Your task to perform on an android device: toggle data saver in the chrome app Image 0: 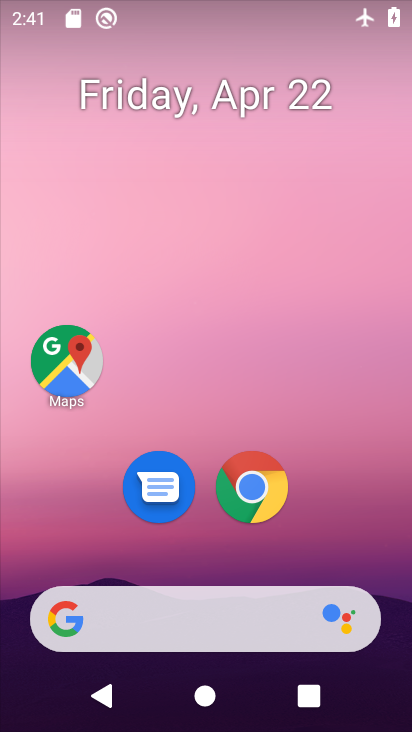
Step 0: click (256, 502)
Your task to perform on an android device: toggle data saver in the chrome app Image 1: 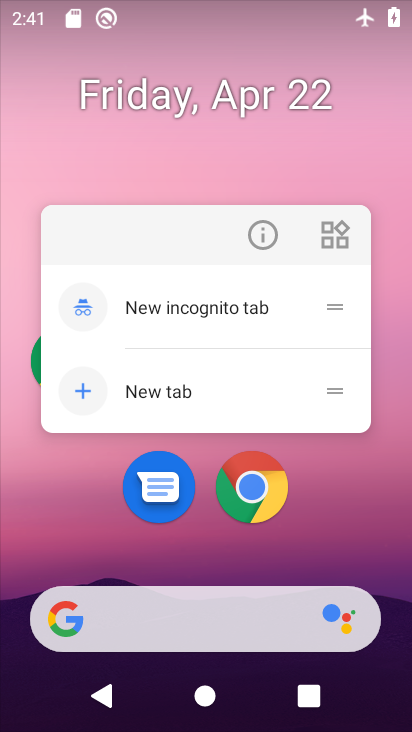
Step 1: click (261, 228)
Your task to perform on an android device: toggle data saver in the chrome app Image 2: 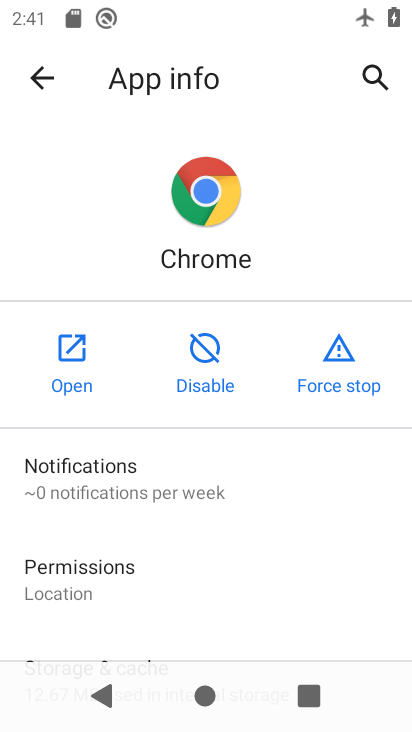
Step 2: click (88, 379)
Your task to perform on an android device: toggle data saver in the chrome app Image 3: 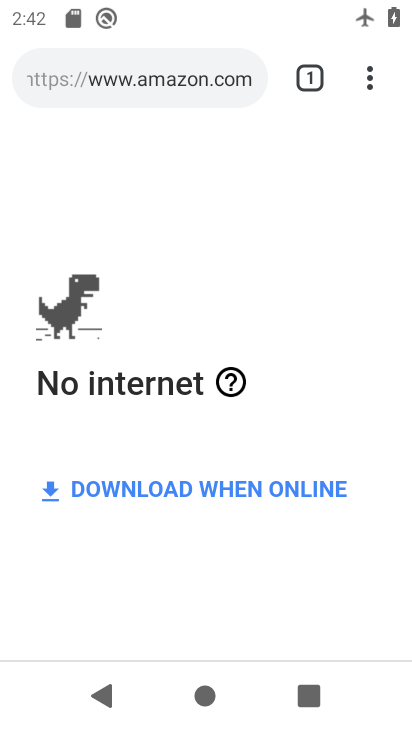
Step 3: click (374, 86)
Your task to perform on an android device: toggle data saver in the chrome app Image 4: 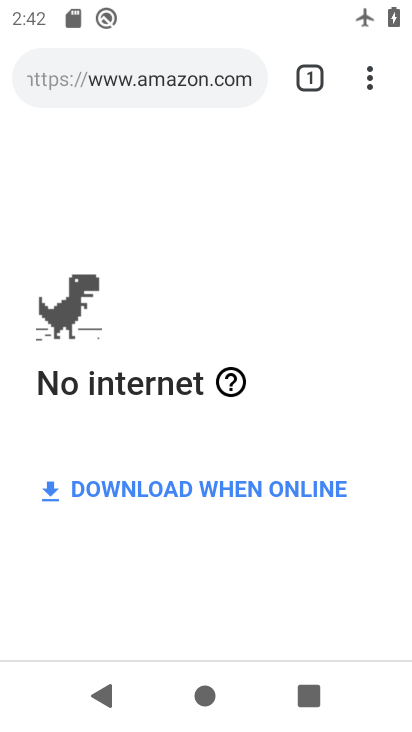
Step 4: click (371, 72)
Your task to perform on an android device: toggle data saver in the chrome app Image 5: 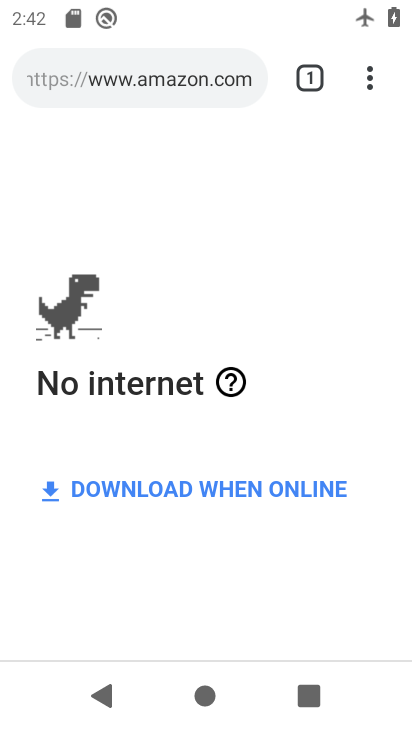
Step 5: click (370, 74)
Your task to perform on an android device: toggle data saver in the chrome app Image 6: 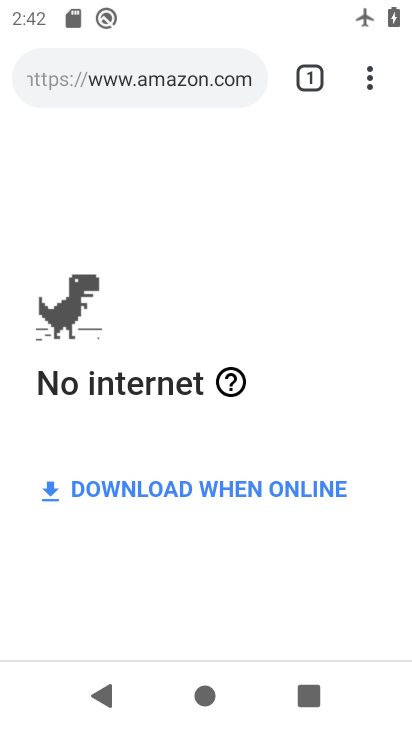
Step 6: click (370, 83)
Your task to perform on an android device: toggle data saver in the chrome app Image 7: 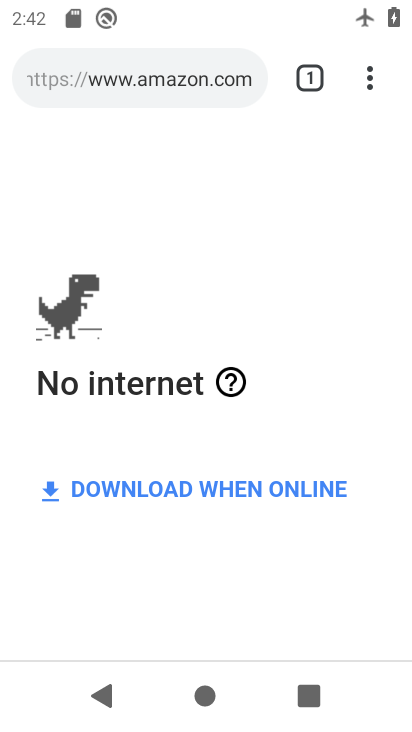
Step 7: click (370, 83)
Your task to perform on an android device: toggle data saver in the chrome app Image 8: 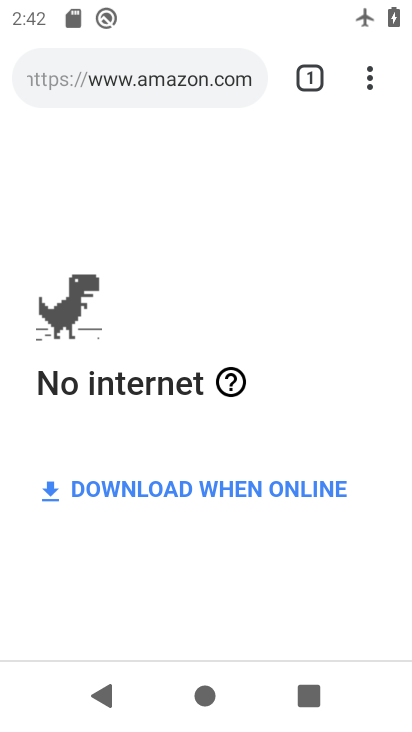
Step 8: click (374, 69)
Your task to perform on an android device: toggle data saver in the chrome app Image 9: 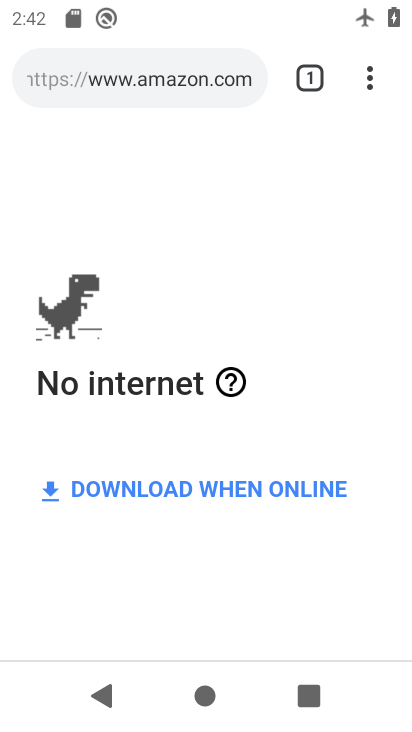
Step 9: click (365, 85)
Your task to perform on an android device: toggle data saver in the chrome app Image 10: 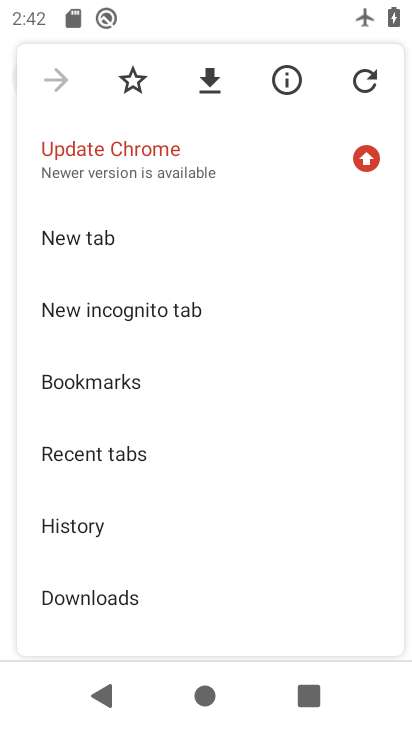
Step 10: drag from (188, 557) to (194, 325)
Your task to perform on an android device: toggle data saver in the chrome app Image 11: 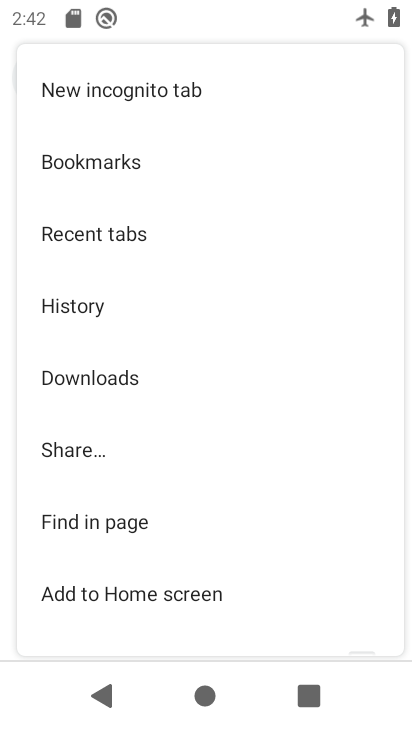
Step 11: drag from (148, 472) to (162, 254)
Your task to perform on an android device: toggle data saver in the chrome app Image 12: 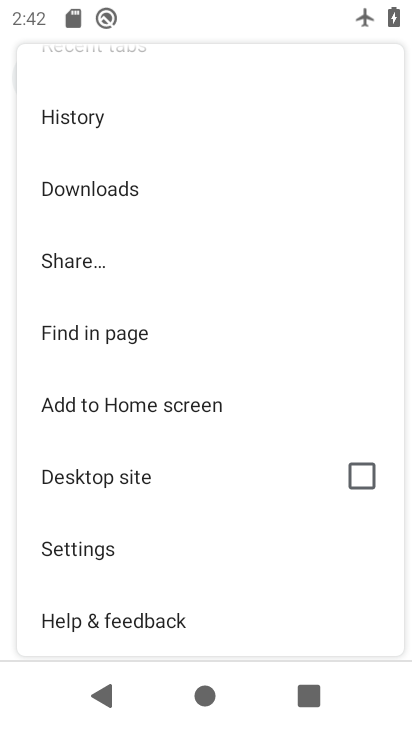
Step 12: click (130, 558)
Your task to perform on an android device: toggle data saver in the chrome app Image 13: 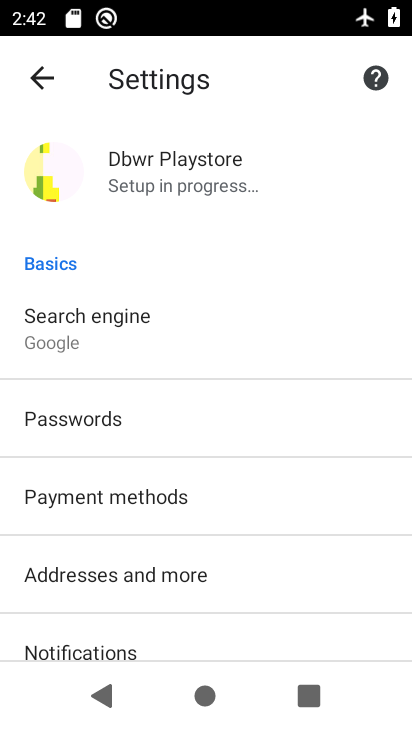
Step 13: drag from (178, 575) to (178, 339)
Your task to perform on an android device: toggle data saver in the chrome app Image 14: 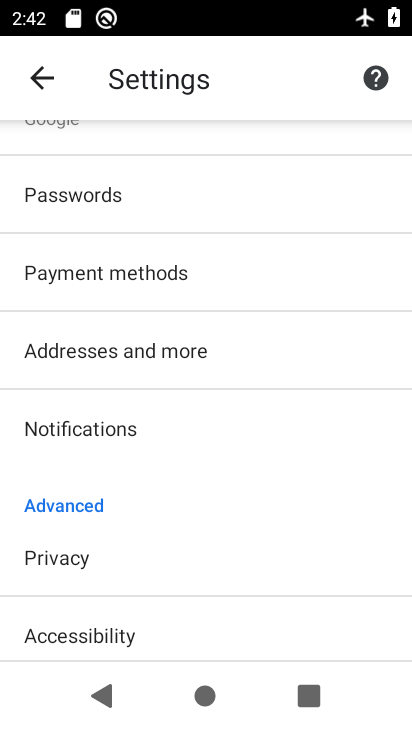
Step 14: drag from (199, 622) to (208, 406)
Your task to perform on an android device: toggle data saver in the chrome app Image 15: 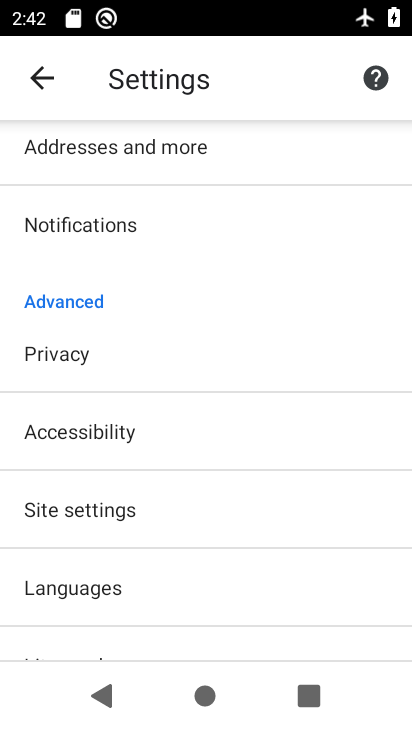
Step 15: drag from (139, 593) to (179, 334)
Your task to perform on an android device: toggle data saver in the chrome app Image 16: 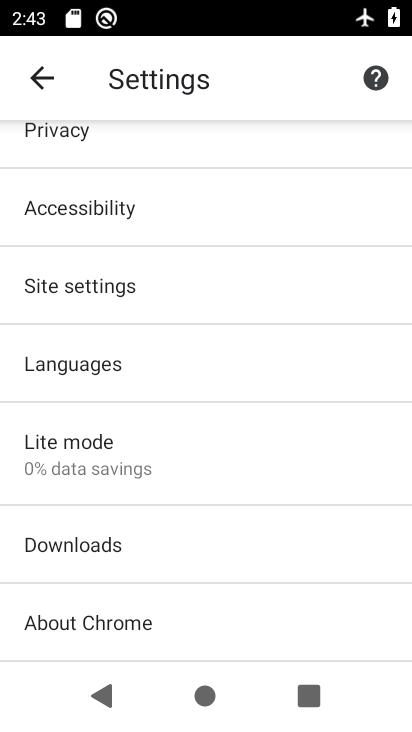
Step 16: click (112, 468)
Your task to perform on an android device: toggle data saver in the chrome app Image 17: 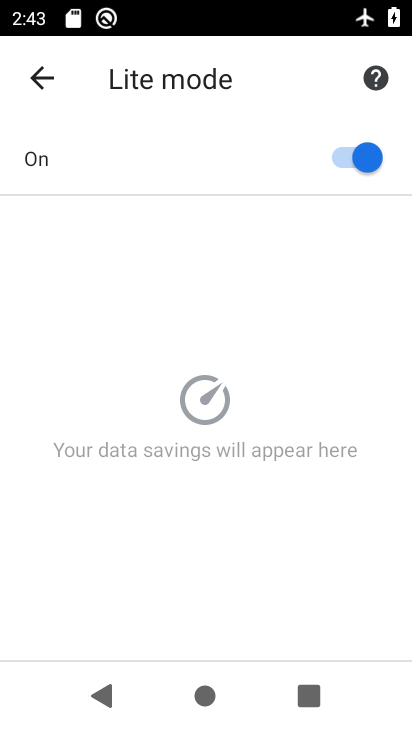
Step 17: click (358, 151)
Your task to perform on an android device: toggle data saver in the chrome app Image 18: 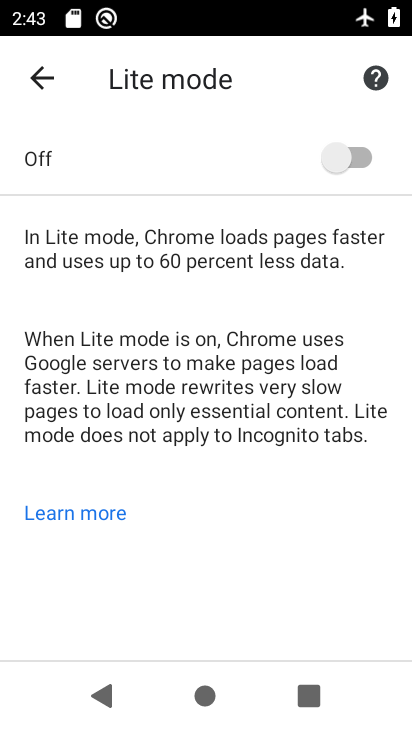
Step 18: task complete